Your task to perform on an android device: turn on priority inbox in the gmail app Image 0: 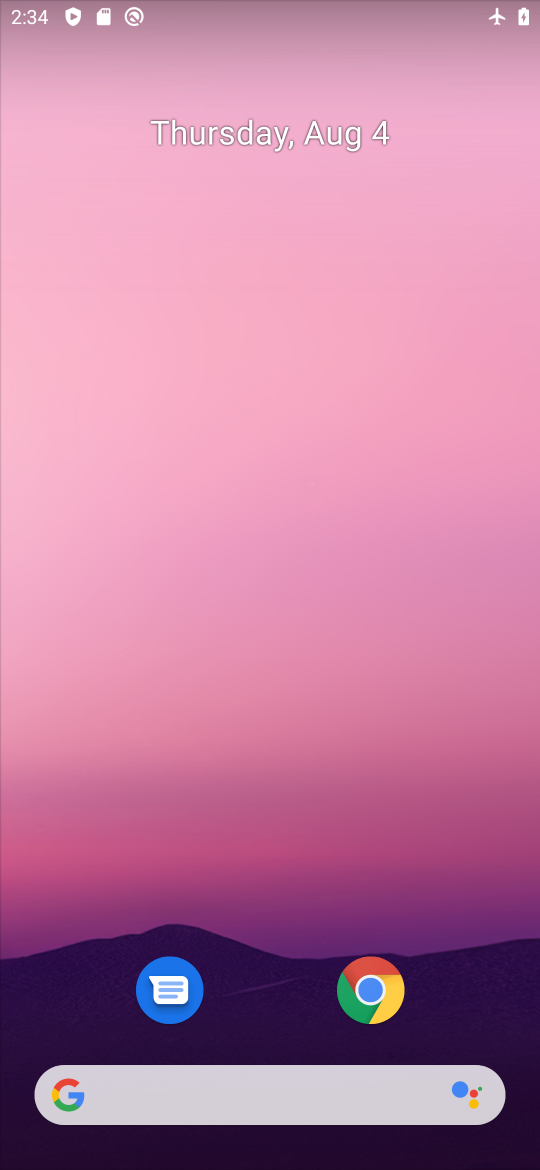
Step 0: drag from (263, 1053) to (243, 101)
Your task to perform on an android device: turn on priority inbox in the gmail app Image 1: 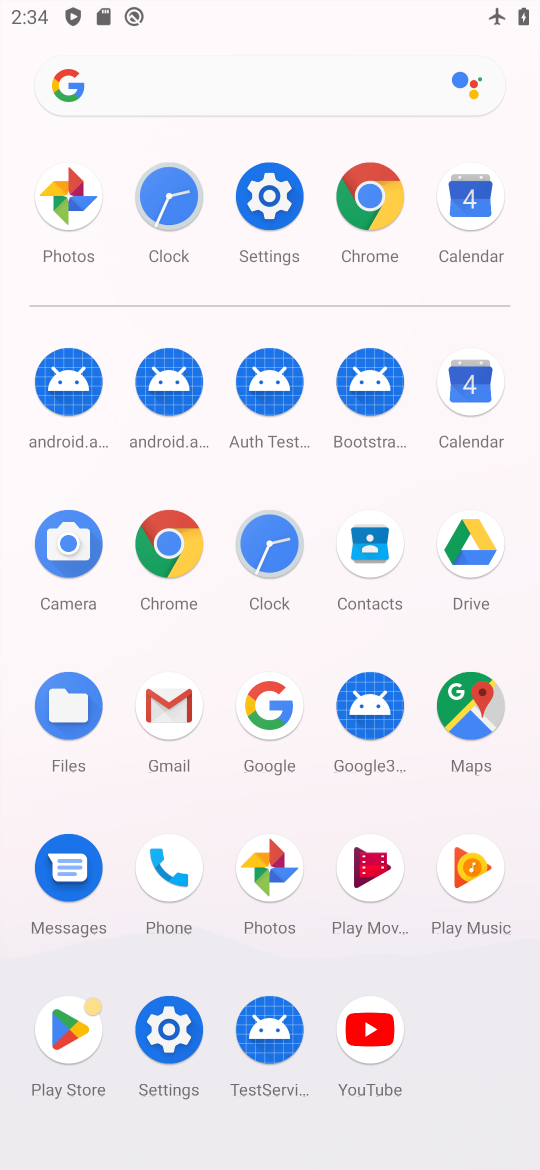
Step 1: click (162, 757)
Your task to perform on an android device: turn on priority inbox in the gmail app Image 2: 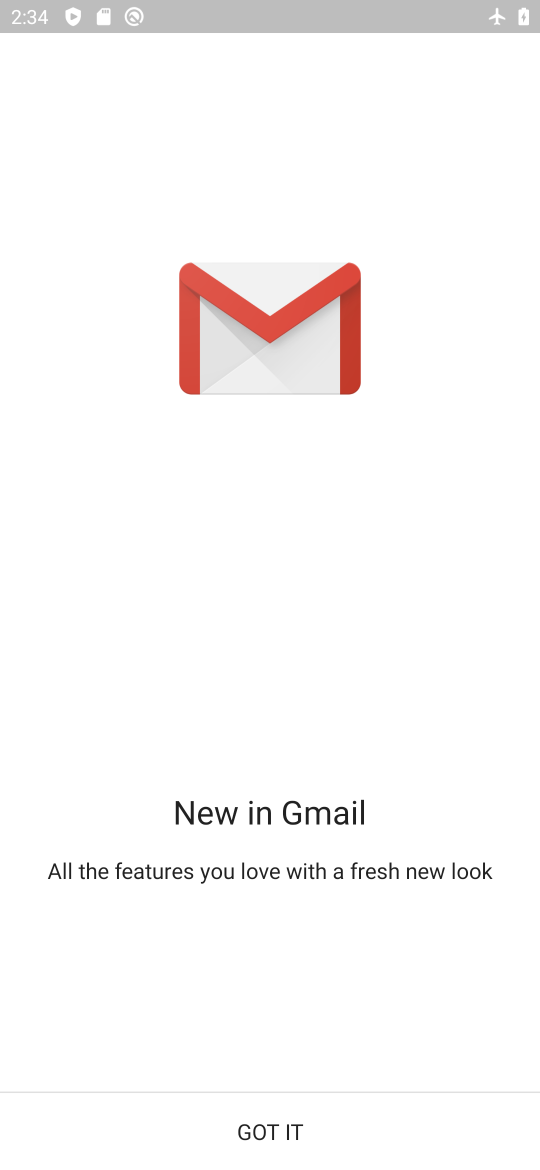
Step 2: click (269, 1148)
Your task to perform on an android device: turn on priority inbox in the gmail app Image 3: 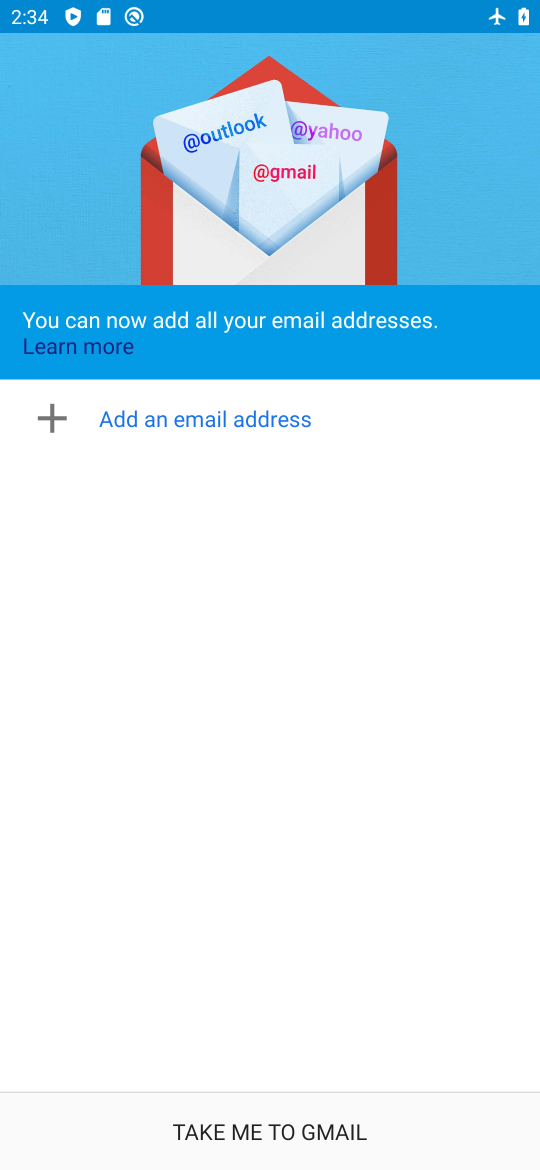
Step 3: click (265, 1145)
Your task to perform on an android device: turn on priority inbox in the gmail app Image 4: 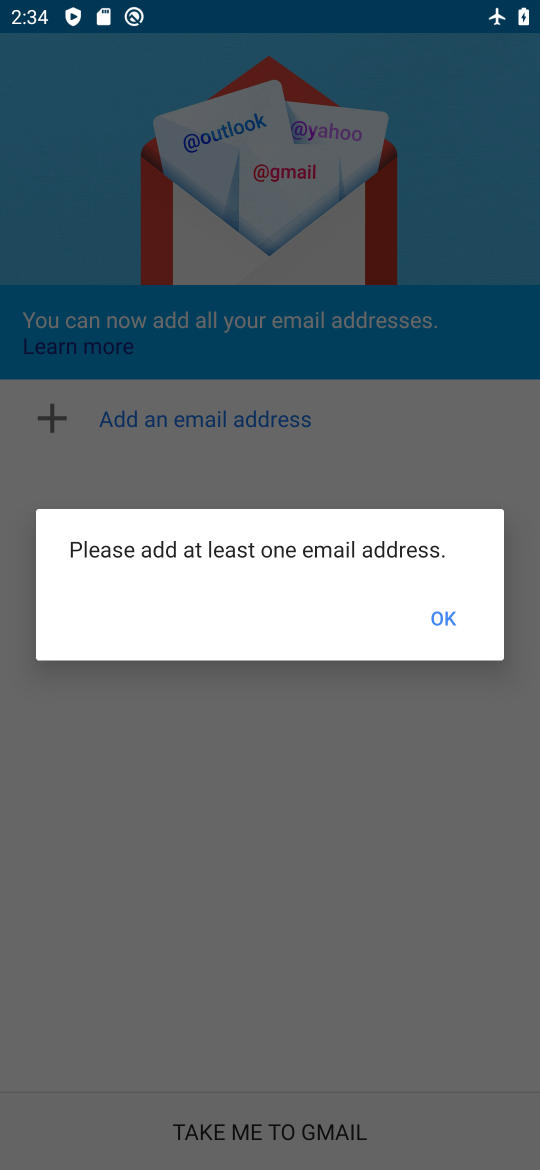
Step 4: task complete